Your task to perform on an android device: What is the recent news? Image 0: 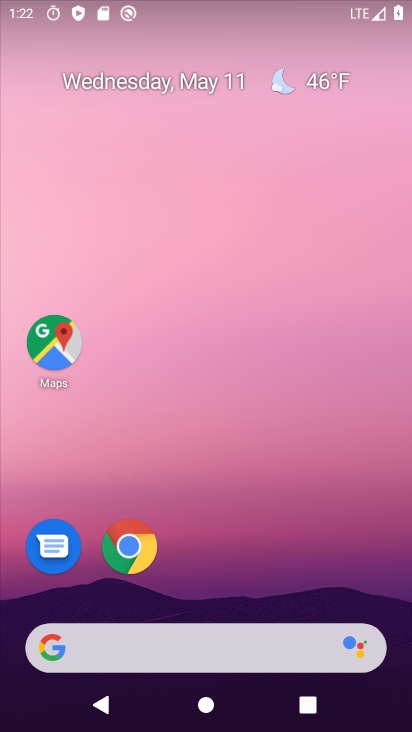
Step 0: drag from (265, 610) to (286, 246)
Your task to perform on an android device: What is the recent news? Image 1: 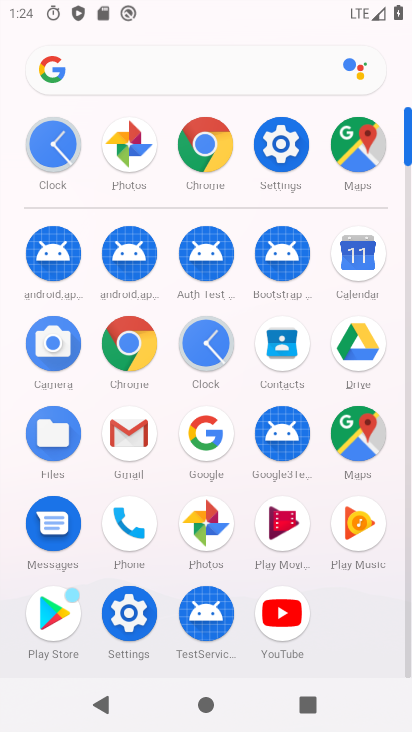
Step 1: click (147, 82)
Your task to perform on an android device: What is the recent news? Image 2: 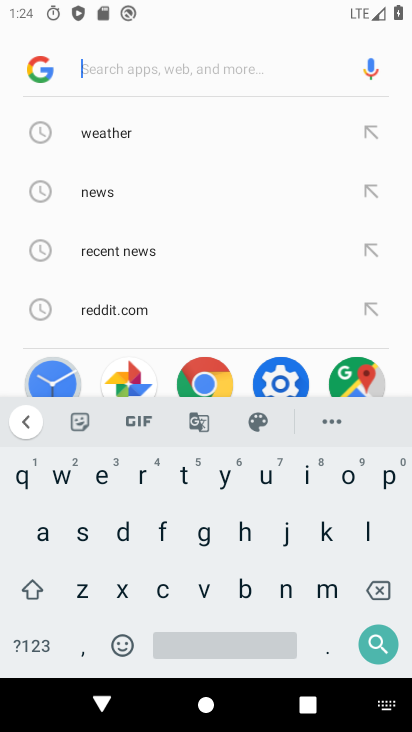
Step 2: click (168, 252)
Your task to perform on an android device: What is the recent news? Image 3: 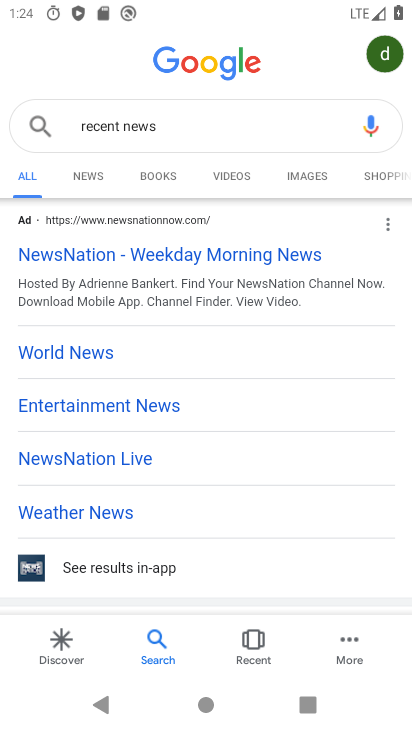
Step 3: task complete